Your task to perform on an android device: Search for "corsair k70" on walmart, select the first entry, add it to the cart, then select checkout. Image 0: 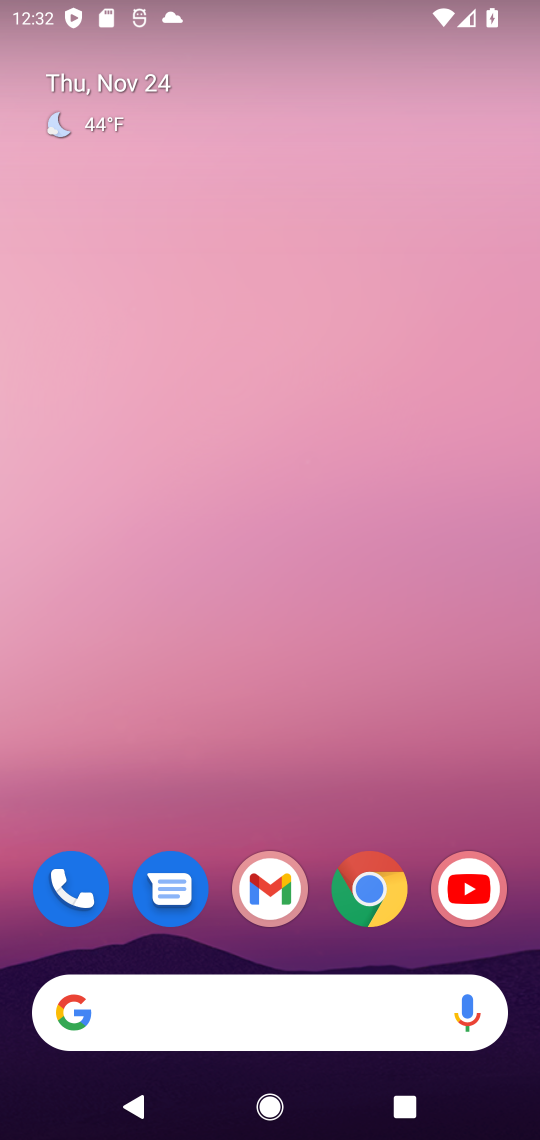
Step 0: click (368, 894)
Your task to perform on an android device: Search for "corsair k70" on walmart, select the first entry, add it to the cart, then select checkout. Image 1: 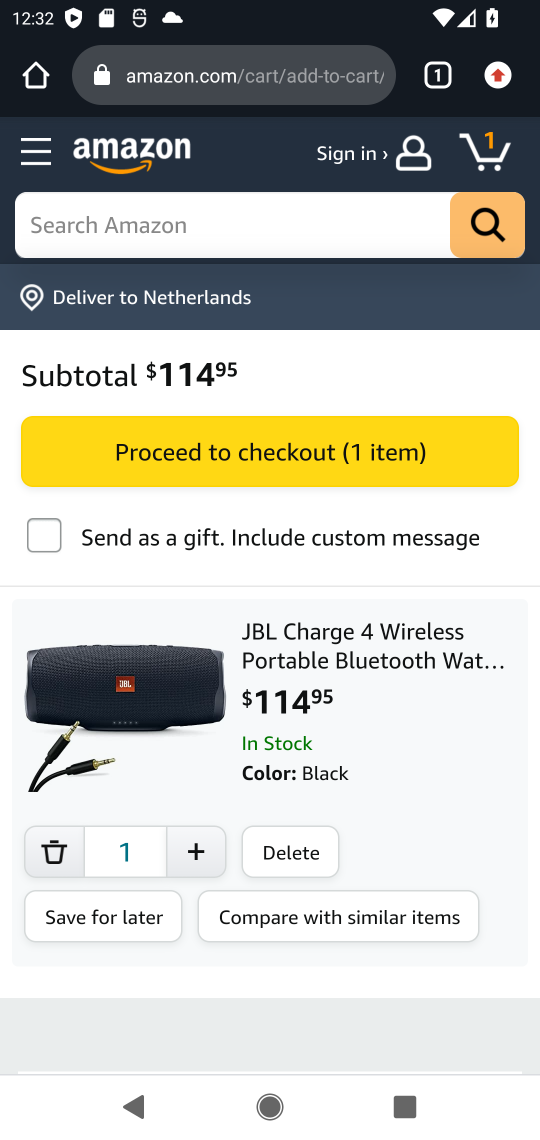
Step 1: click (237, 89)
Your task to perform on an android device: Search for "corsair k70" on walmart, select the first entry, add it to the cart, then select checkout. Image 2: 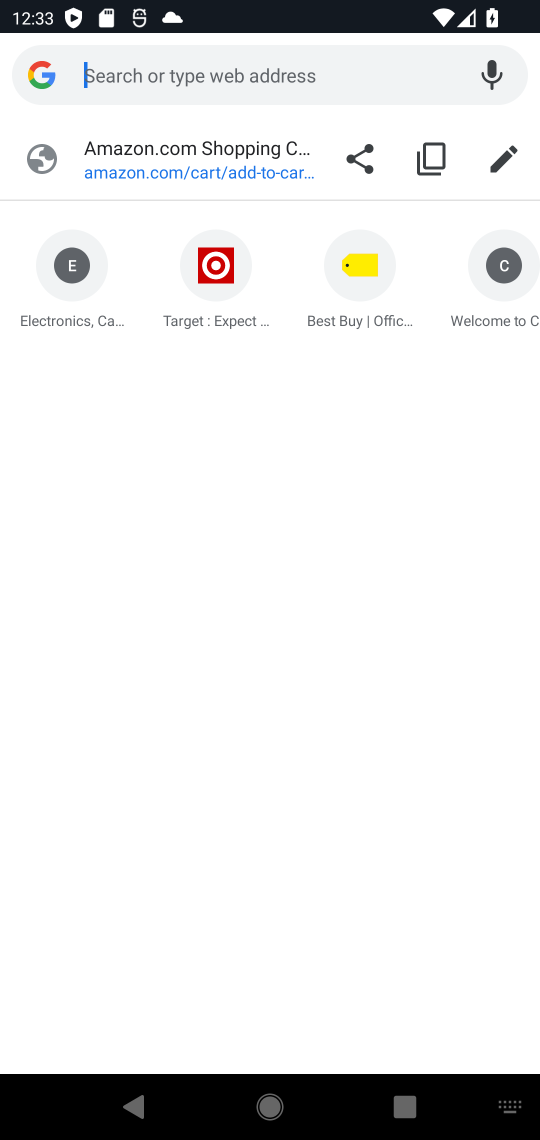
Step 2: type "walmart.com"
Your task to perform on an android device: Search for "corsair k70" on walmart, select the first entry, add it to the cart, then select checkout. Image 3: 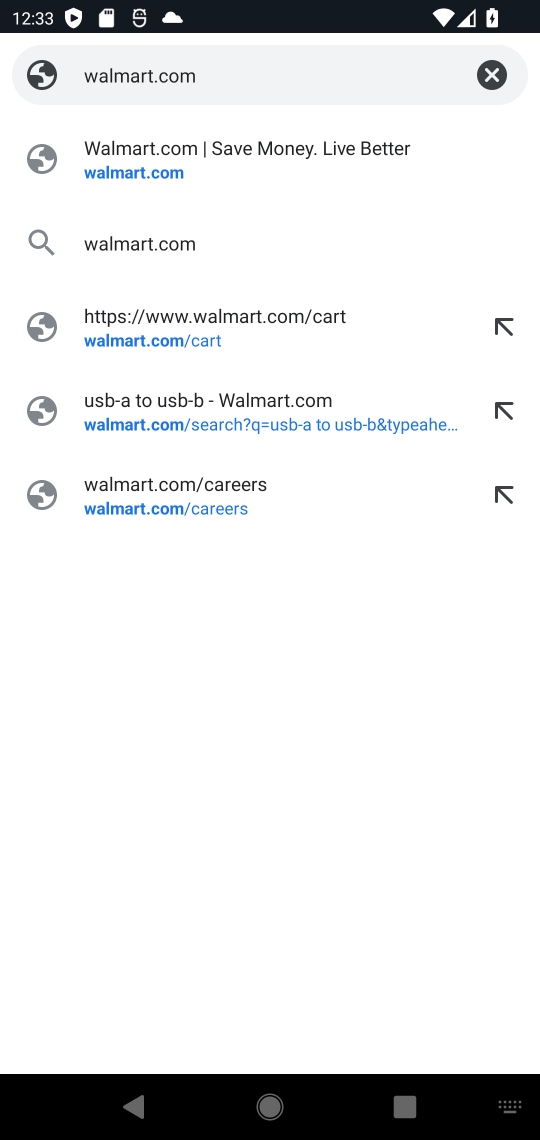
Step 3: click (114, 180)
Your task to perform on an android device: Search for "corsair k70" on walmart, select the first entry, add it to the cart, then select checkout. Image 4: 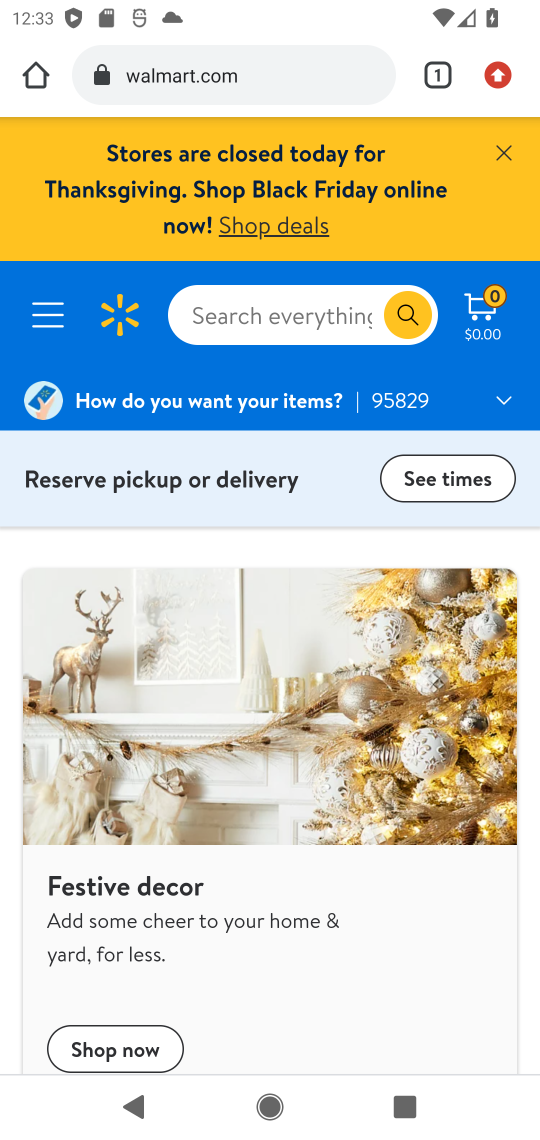
Step 4: click (295, 322)
Your task to perform on an android device: Search for "corsair k70" on walmart, select the first entry, add it to the cart, then select checkout. Image 5: 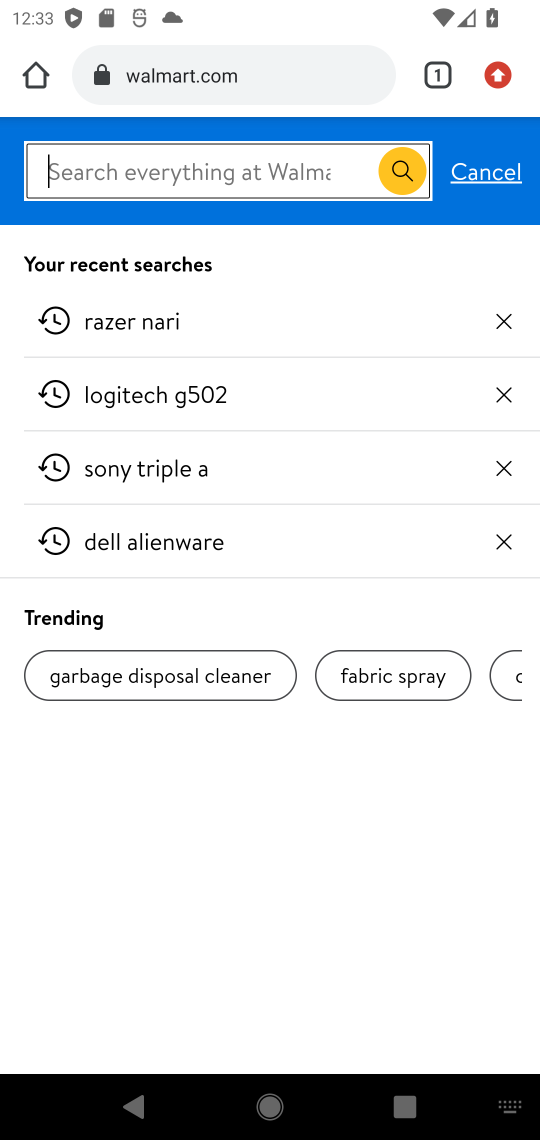
Step 5: type "corsair k70"
Your task to perform on an android device: Search for "corsair k70" on walmart, select the first entry, add it to the cart, then select checkout. Image 6: 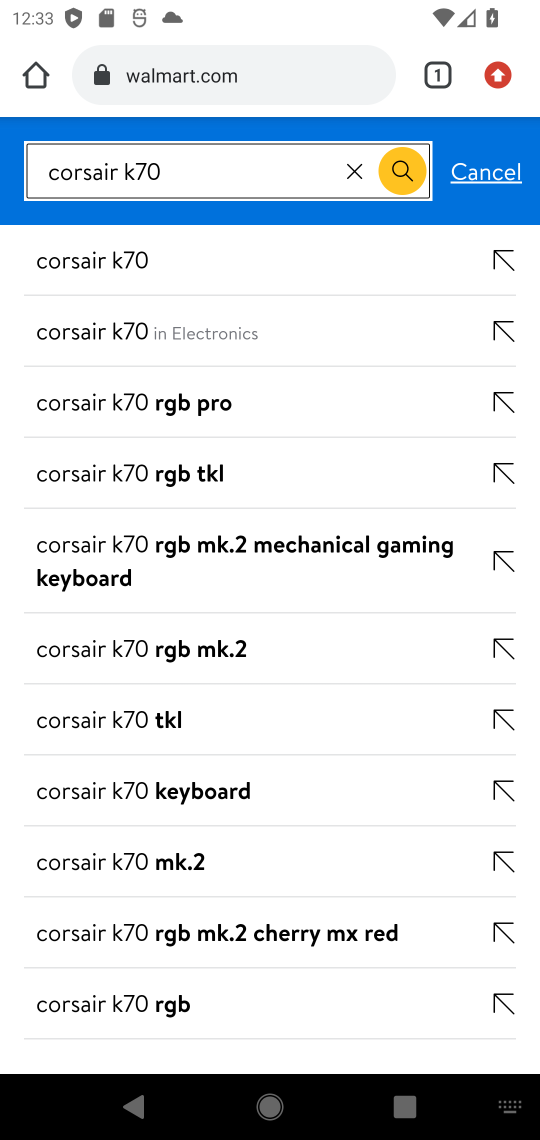
Step 6: click (90, 257)
Your task to perform on an android device: Search for "corsair k70" on walmart, select the first entry, add it to the cart, then select checkout. Image 7: 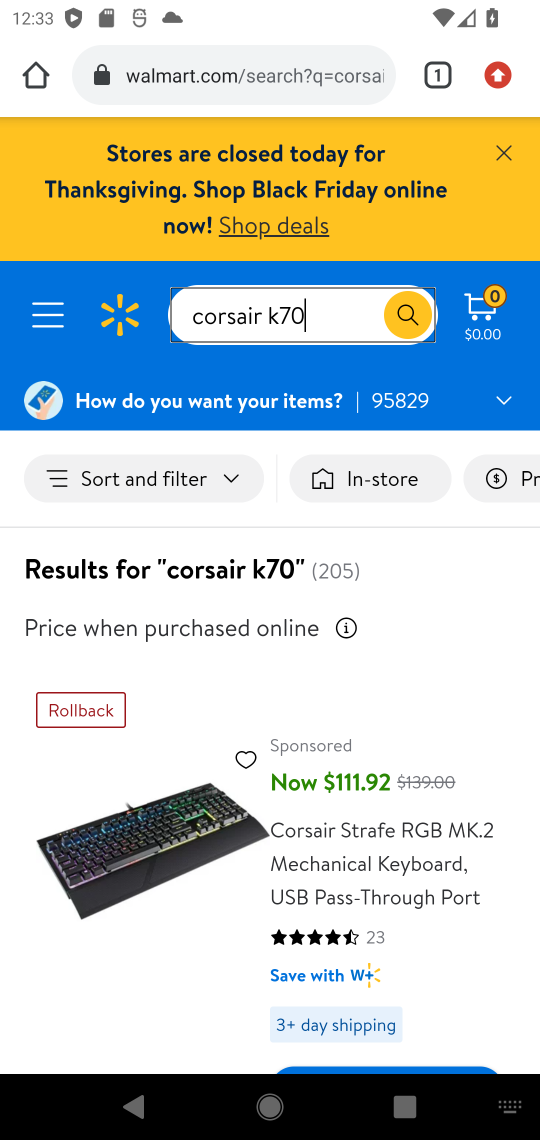
Step 7: task complete